Your task to perform on an android device: show emergency info Image 0: 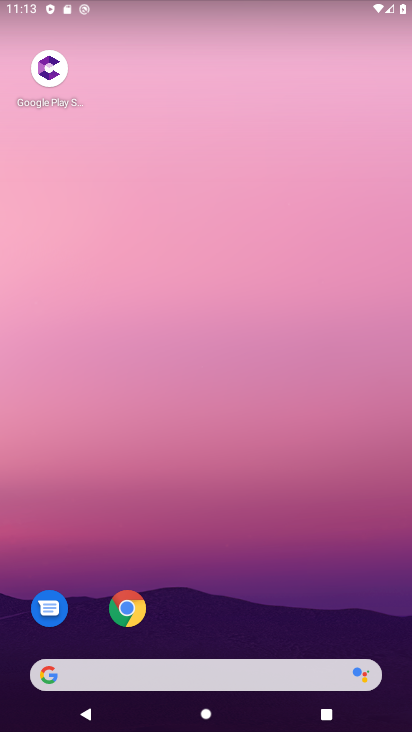
Step 0: drag from (284, 577) to (191, 37)
Your task to perform on an android device: show emergency info Image 1: 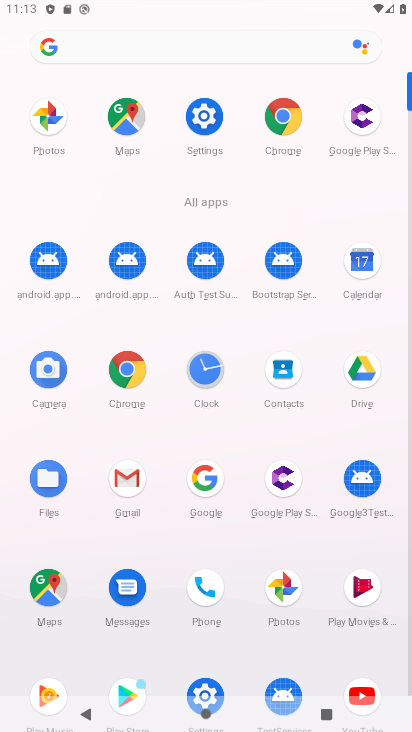
Step 1: click (211, 124)
Your task to perform on an android device: show emergency info Image 2: 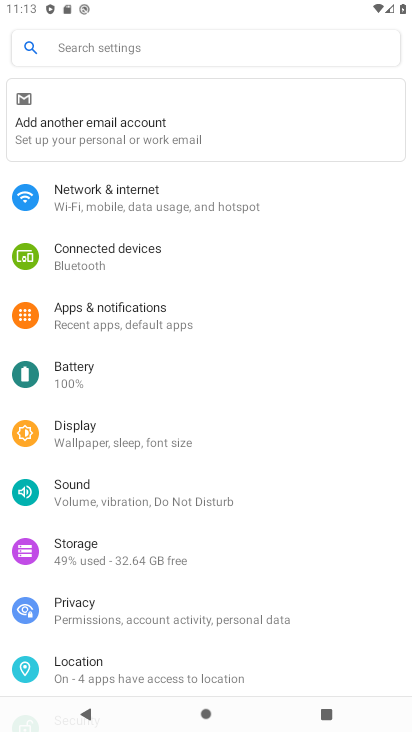
Step 2: drag from (237, 625) to (190, 52)
Your task to perform on an android device: show emergency info Image 3: 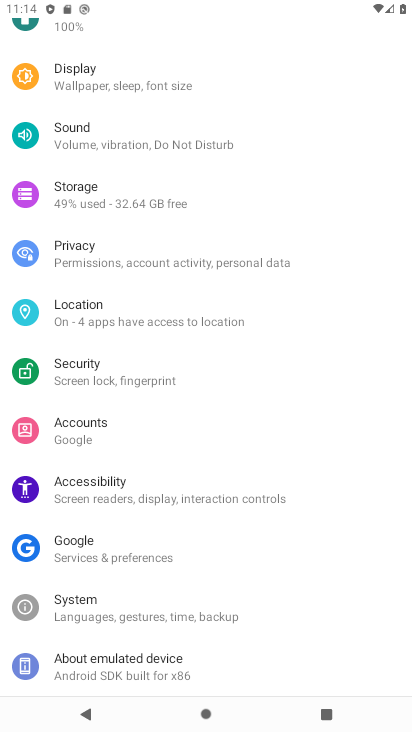
Step 3: drag from (217, 518) to (208, 49)
Your task to perform on an android device: show emergency info Image 4: 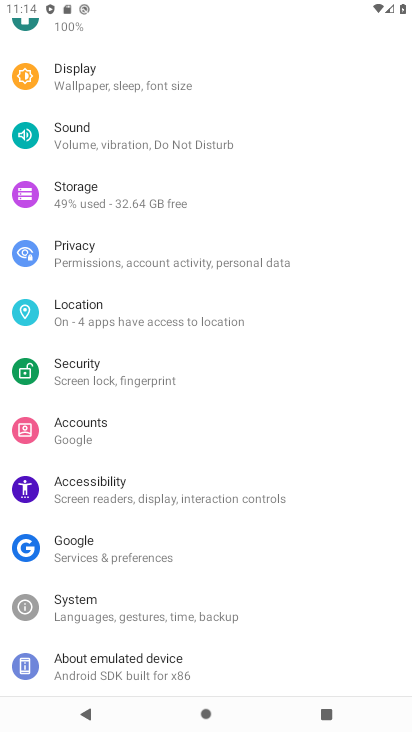
Step 4: click (196, 676)
Your task to perform on an android device: show emergency info Image 5: 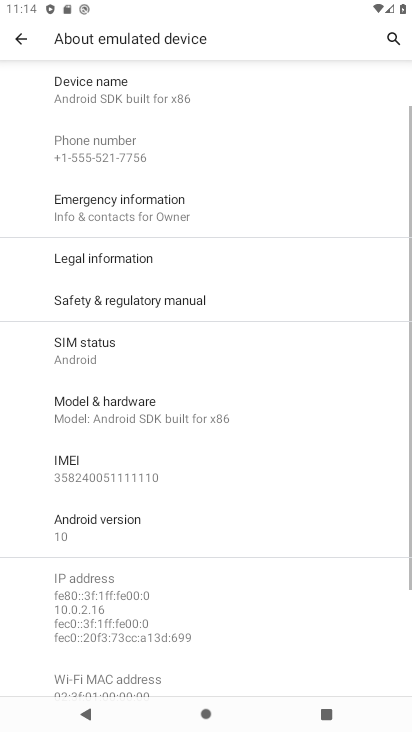
Step 5: click (193, 201)
Your task to perform on an android device: show emergency info Image 6: 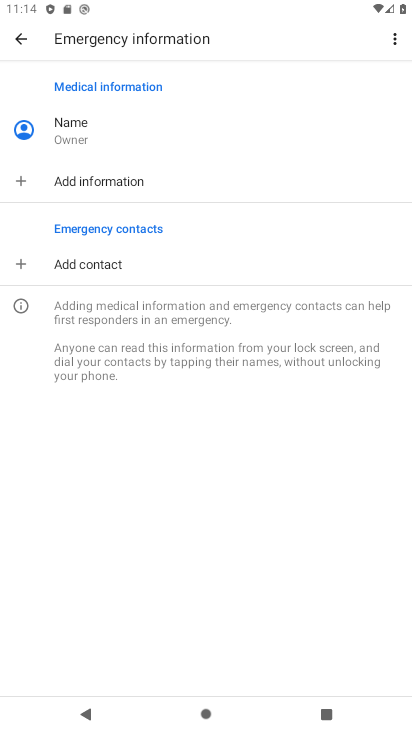
Step 6: task complete